Your task to perform on an android device: Open calendar and show me the first week of next month Image 0: 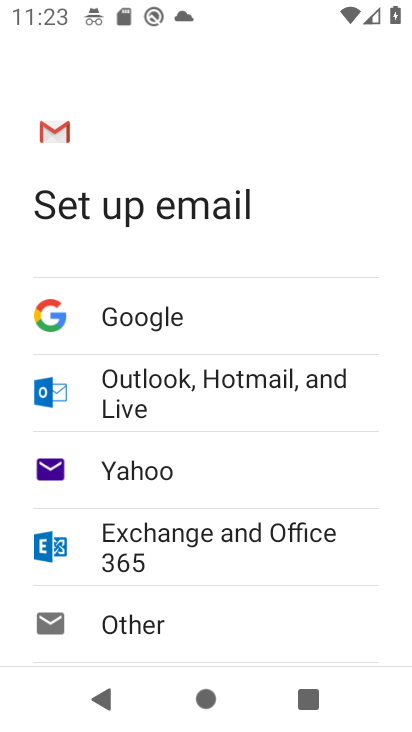
Step 0: press home button
Your task to perform on an android device: Open calendar and show me the first week of next month Image 1: 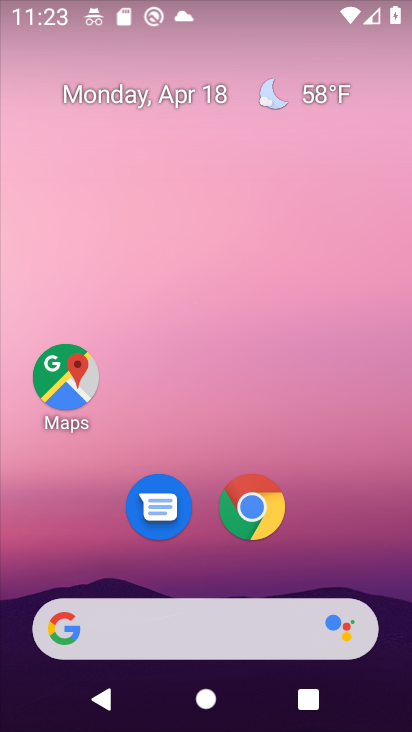
Step 1: drag from (216, 585) to (273, 9)
Your task to perform on an android device: Open calendar and show me the first week of next month Image 2: 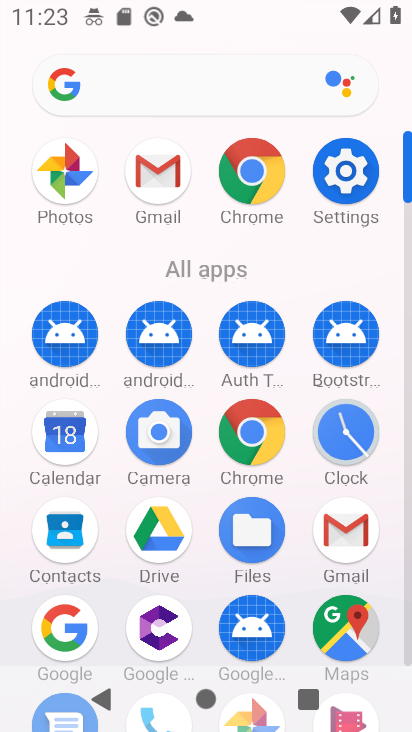
Step 2: click (68, 450)
Your task to perform on an android device: Open calendar and show me the first week of next month Image 3: 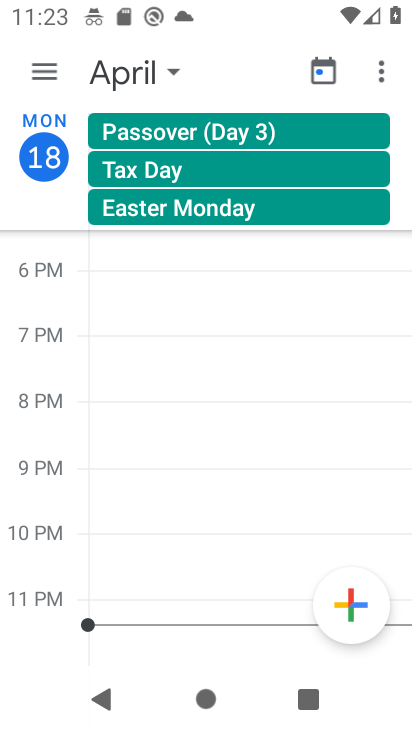
Step 3: click (47, 75)
Your task to perform on an android device: Open calendar and show me the first week of next month Image 4: 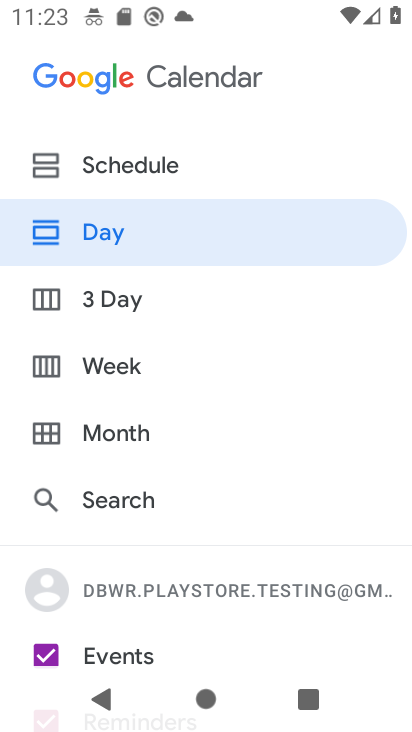
Step 4: click (107, 374)
Your task to perform on an android device: Open calendar and show me the first week of next month Image 5: 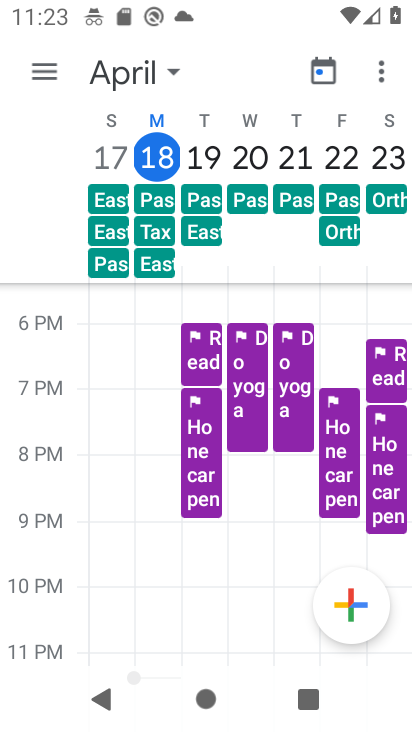
Step 5: click (157, 67)
Your task to perform on an android device: Open calendar and show me the first week of next month Image 6: 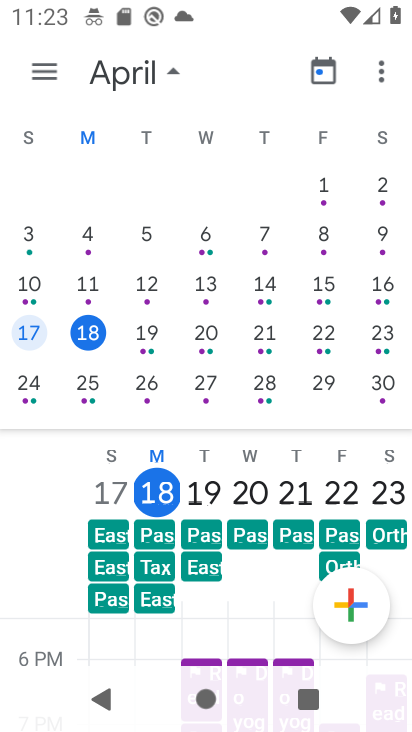
Step 6: drag from (334, 244) to (4, 164)
Your task to perform on an android device: Open calendar and show me the first week of next month Image 7: 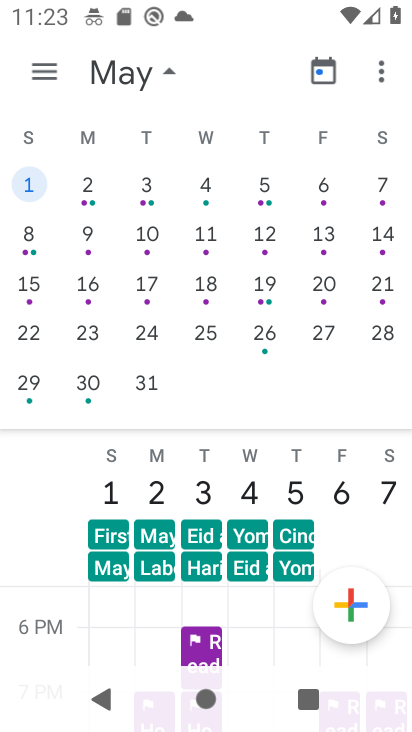
Step 7: click (41, 61)
Your task to perform on an android device: Open calendar and show me the first week of next month Image 8: 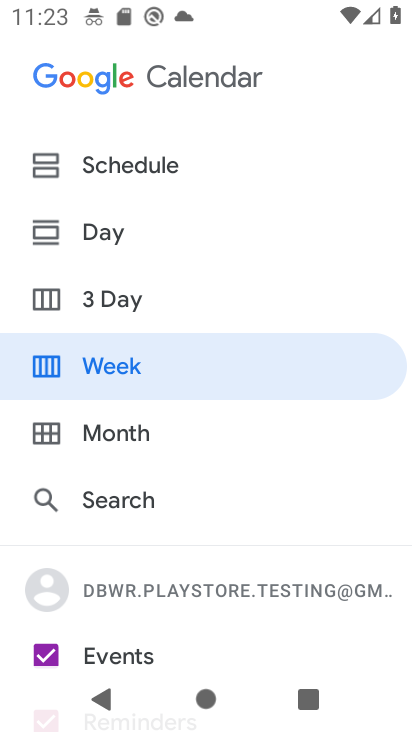
Step 8: click (87, 356)
Your task to perform on an android device: Open calendar and show me the first week of next month Image 9: 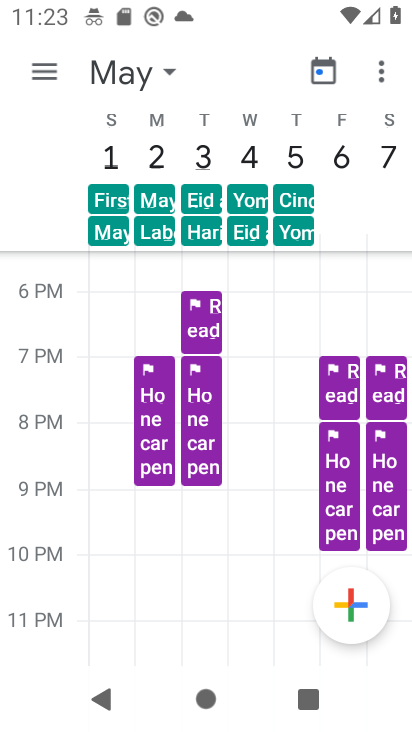
Step 9: task complete